Your task to perform on an android device: check storage Image 0: 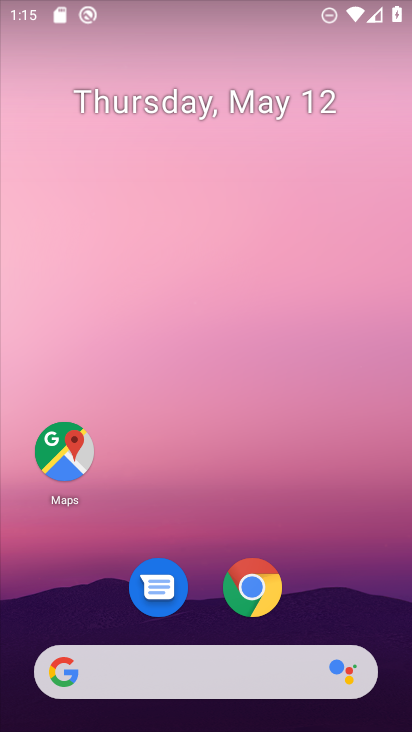
Step 0: drag from (348, 561) to (241, 71)
Your task to perform on an android device: check storage Image 1: 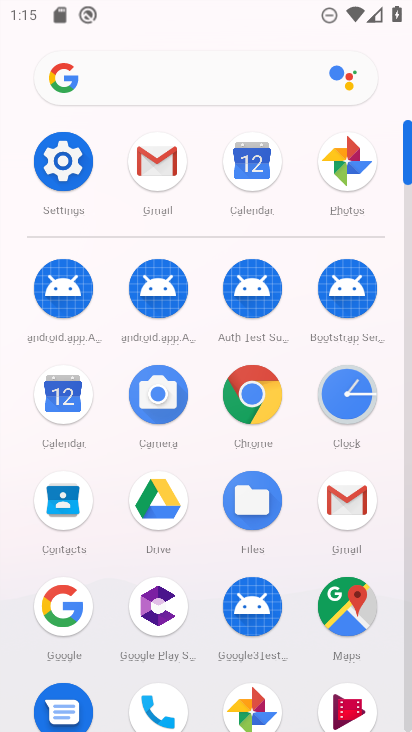
Step 1: click (62, 163)
Your task to perform on an android device: check storage Image 2: 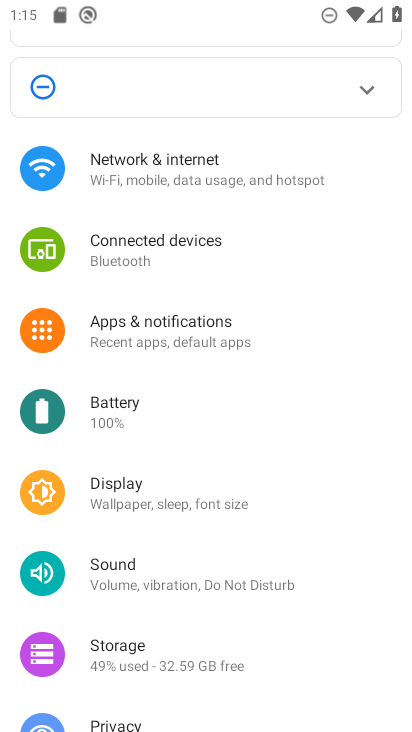
Step 2: drag from (192, 476) to (176, 353)
Your task to perform on an android device: check storage Image 3: 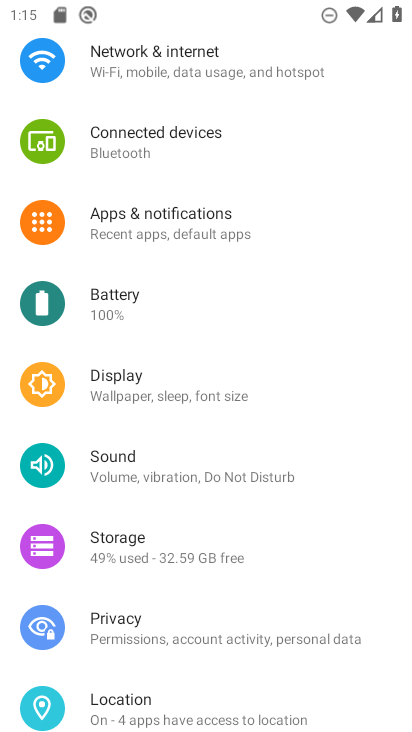
Step 3: click (137, 551)
Your task to perform on an android device: check storage Image 4: 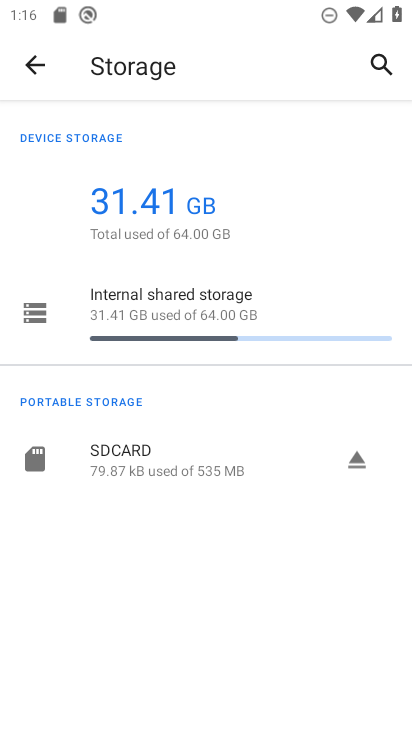
Step 4: task complete